Your task to perform on an android device: Show me popular games on the Play Store Image 0: 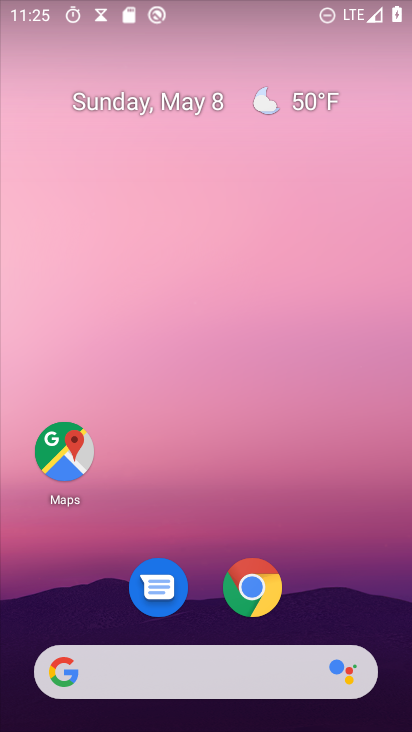
Step 0: drag from (320, 592) to (271, 152)
Your task to perform on an android device: Show me popular games on the Play Store Image 1: 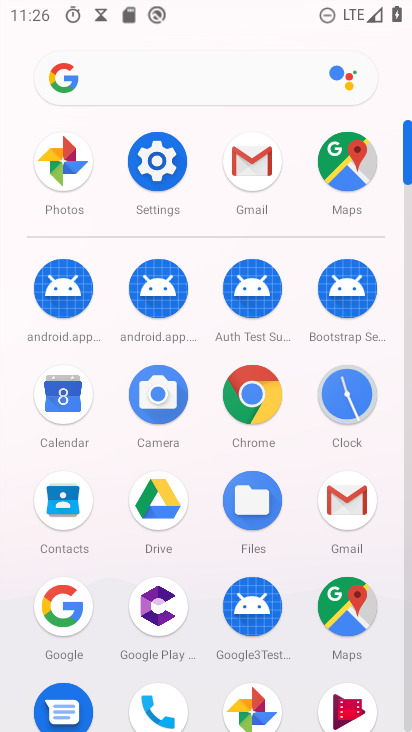
Step 1: drag from (301, 572) to (301, 296)
Your task to perform on an android device: Show me popular games on the Play Store Image 2: 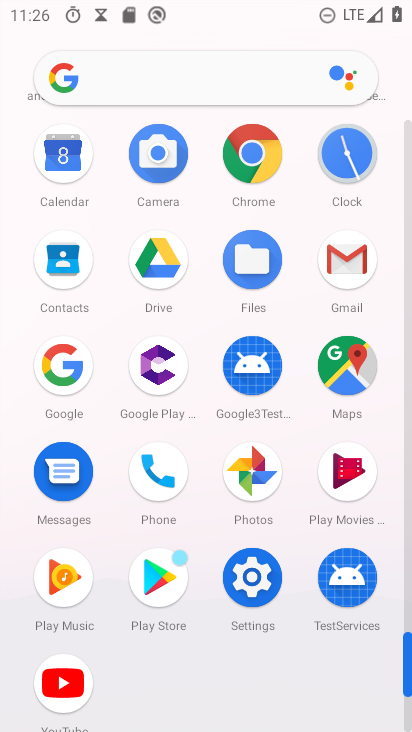
Step 2: click (157, 576)
Your task to perform on an android device: Show me popular games on the Play Store Image 3: 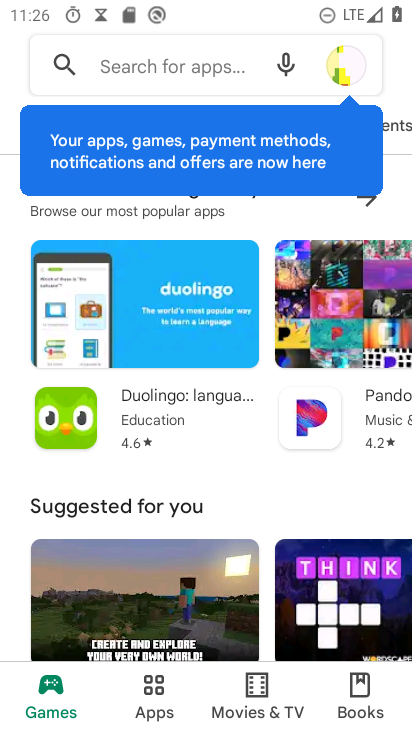
Step 3: drag from (212, 648) to (231, 598)
Your task to perform on an android device: Show me popular games on the Play Store Image 4: 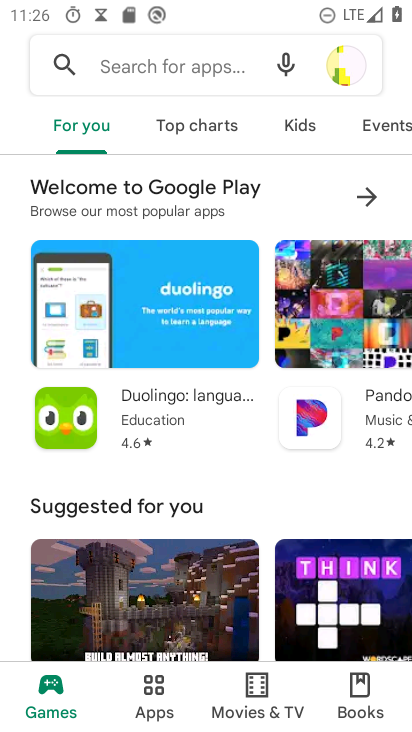
Step 4: click (181, 130)
Your task to perform on an android device: Show me popular games on the Play Store Image 5: 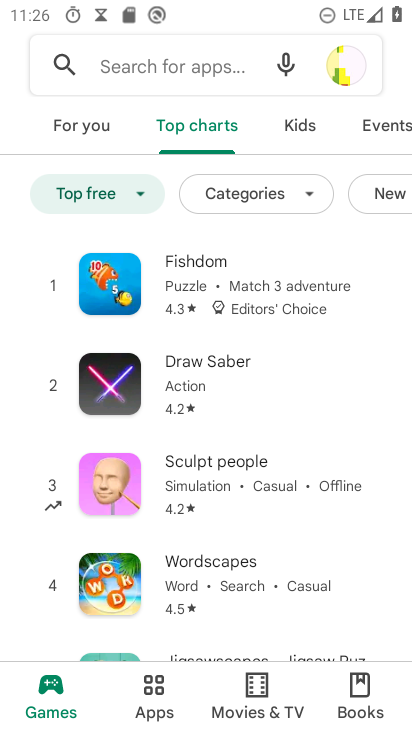
Step 5: task complete